Your task to perform on an android device: turn on airplane mode Image 0: 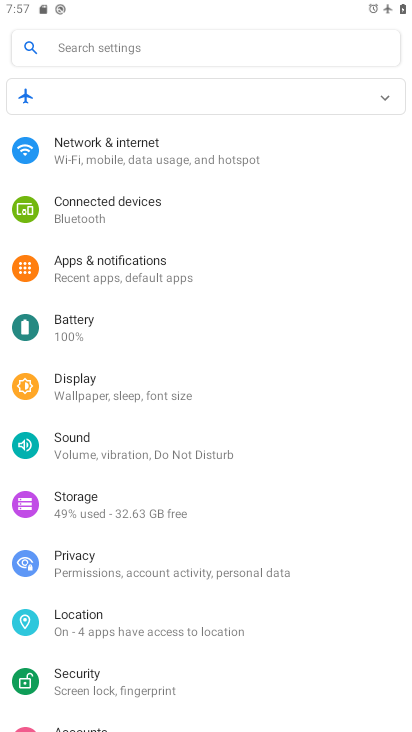
Step 0: click (84, 140)
Your task to perform on an android device: turn on airplane mode Image 1: 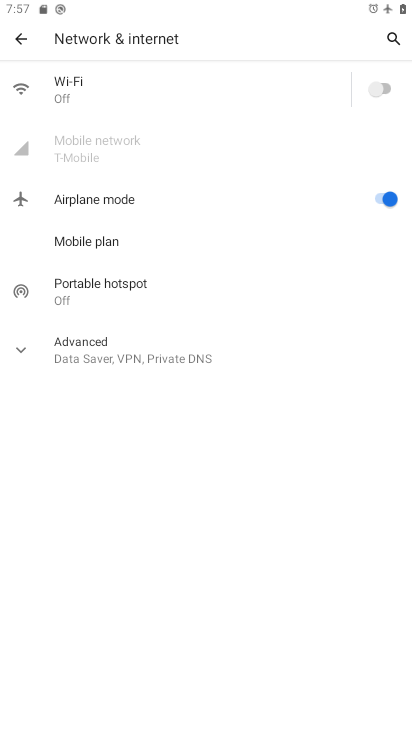
Step 1: task complete